Your task to perform on an android device: Find coffee shops on Maps Image 0: 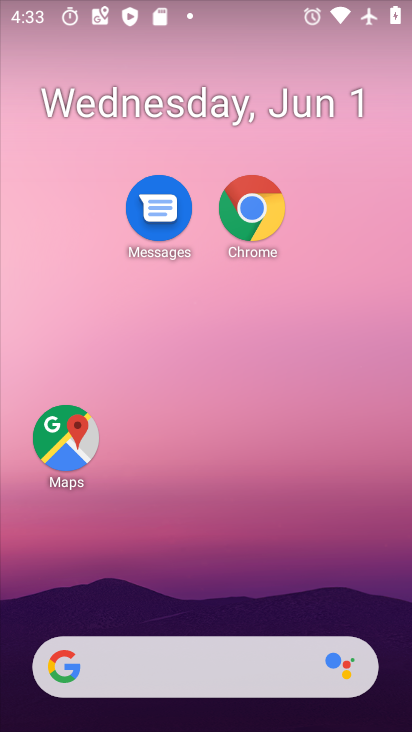
Step 0: click (69, 437)
Your task to perform on an android device: Find coffee shops on Maps Image 1: 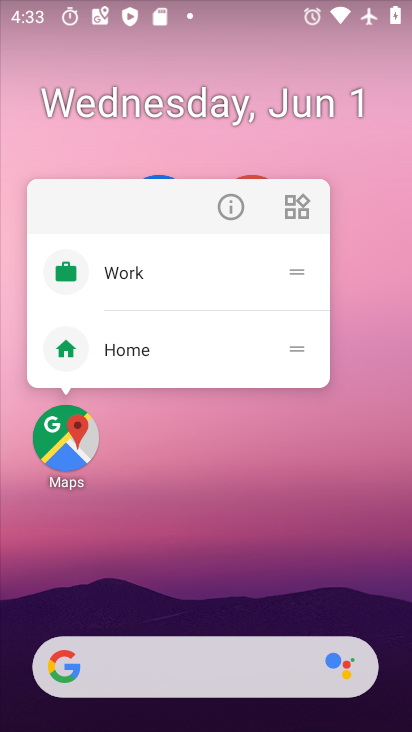
Step 1: click (69, 437)
Your task to perform on an android device: Find coffee shops on Maps Image 2: 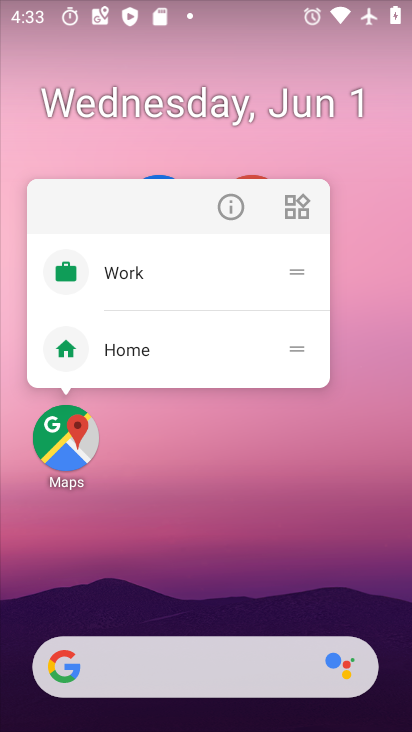
Step 2: click (82, 449)
Your task to perform on an android device: Find coffee shops on Maps Image 3: 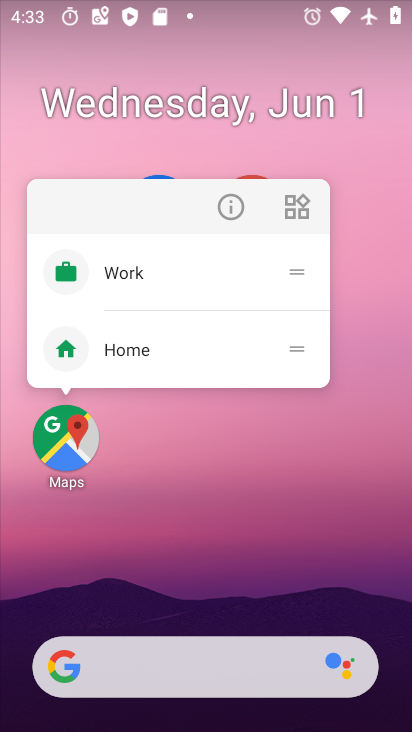
Step 3: click (82, 449)
Your task to perform on an android device: Find coffee shops on Maps Image 4: 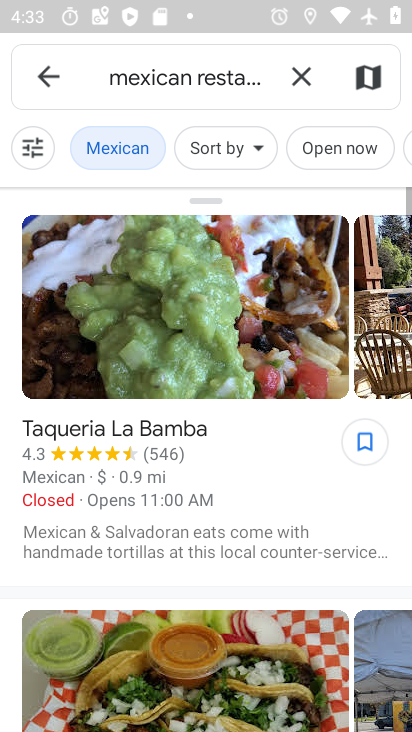
Step 4: click (288, 65)
Your task to perform on an android device: Find coffee shops on Maps Image 5: 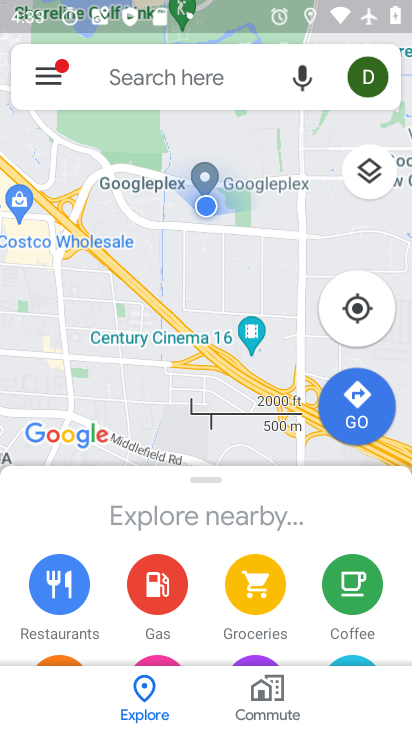
Step 5: click (226, 84)
Your task to perform on an android device: Find coffee shops on Maps Image 6: 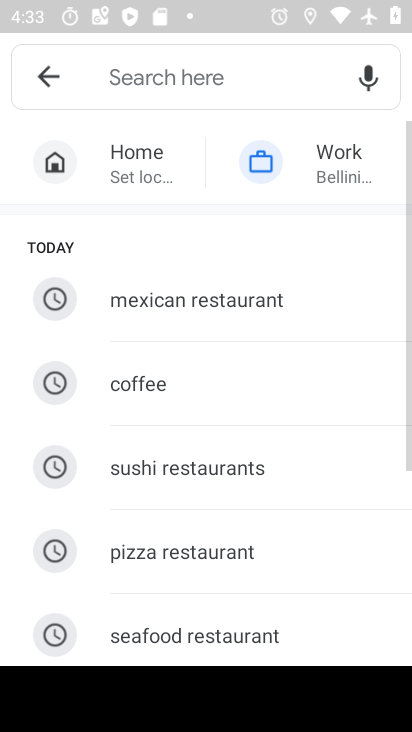
Step 6: click (163, 386)
Your task to perform on an android device: Find coffee shops on Maps Image 7: 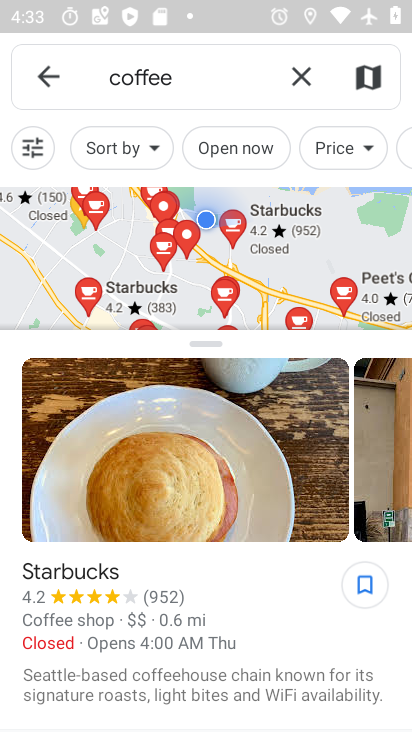
Step 7: task complete